Your task to perform on an android device: turn off javascript in the chrome app Image 0: 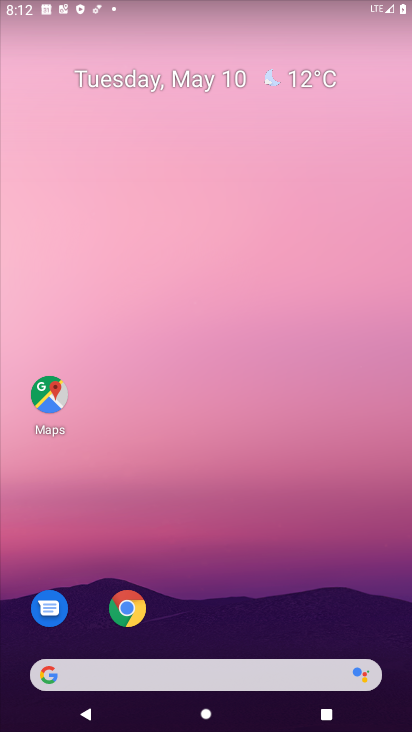
Step 0: drag from (219, 671) to (366, 201)
Your task to perform on an android device: turn off javascript in the chrome app Image 1: 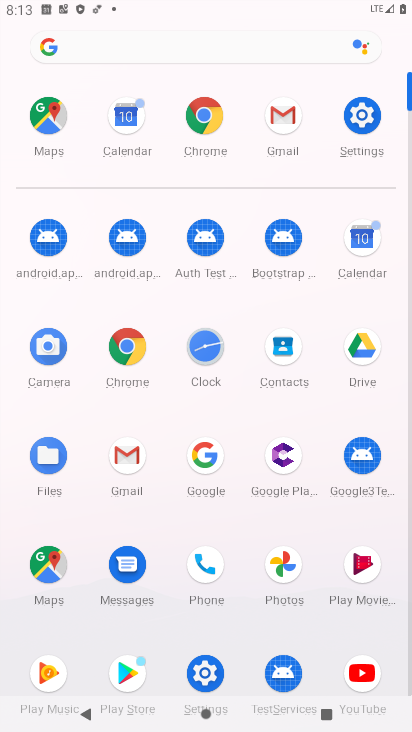
Step 1: click (206, 118)
Your task to perform on an android device: turn off javascript in the chrome app Image 2: 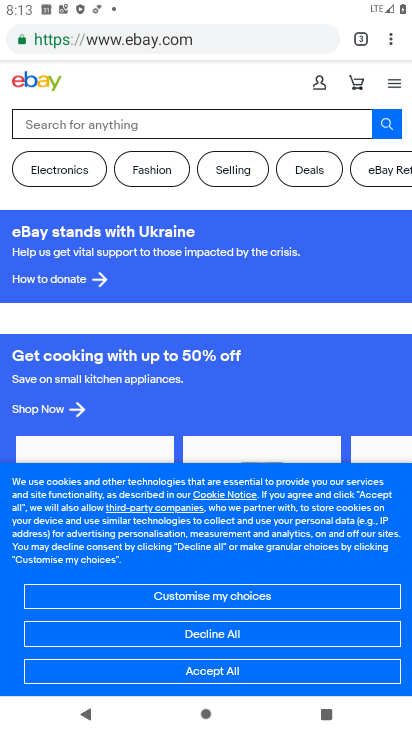
Step 2: drag from (393, 37) to (280, 480)
Your task to perform on an android device: turn off javascript in the chrome app Image 3: 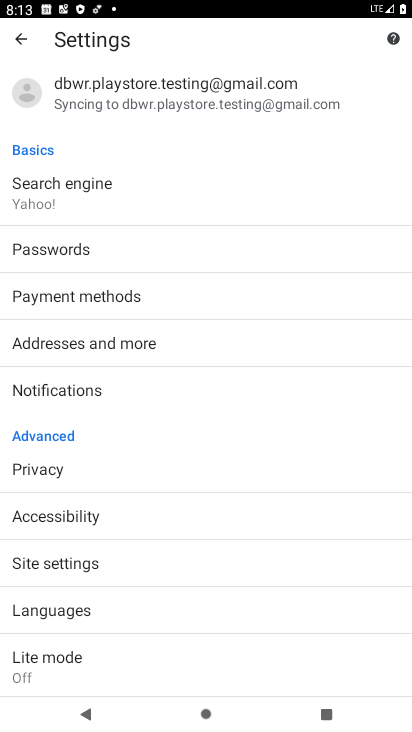
Step 3: click (90, 563)
Your task to perform on an android device: turn off javascript in the chrome app Image 4: 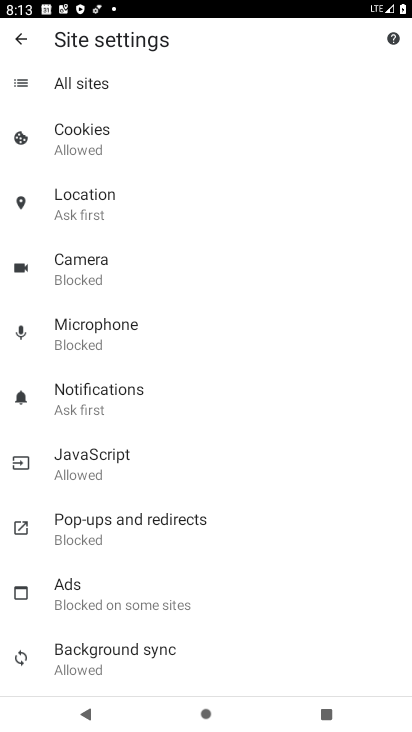
Step 4: click (84, 467)
Your task to perform on an android device: turn off javascript in the chrome app Image 5: 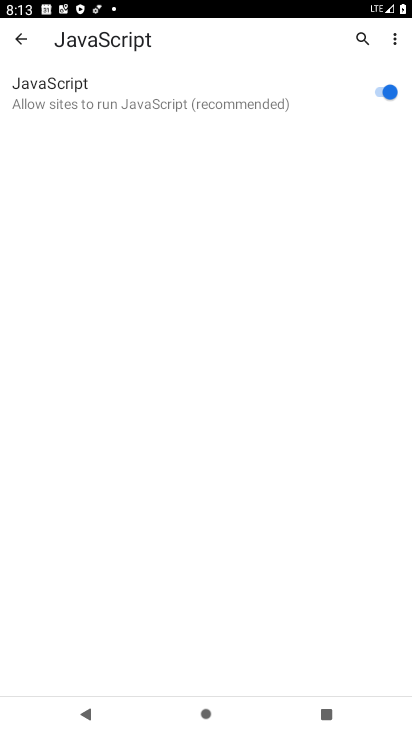
Step 5: click (379, 92)
Your task to perform on an android device: turn off javascript in the chrome app Image 6: 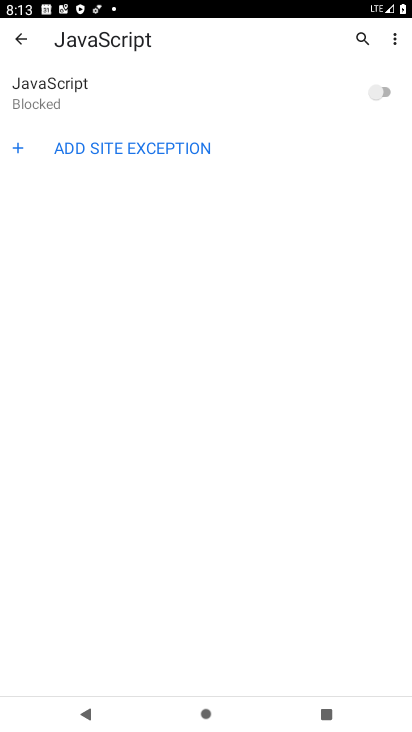
Step 6: task complete